Your task to perform on an android device: turn on data saver in the chrome app Image 0: 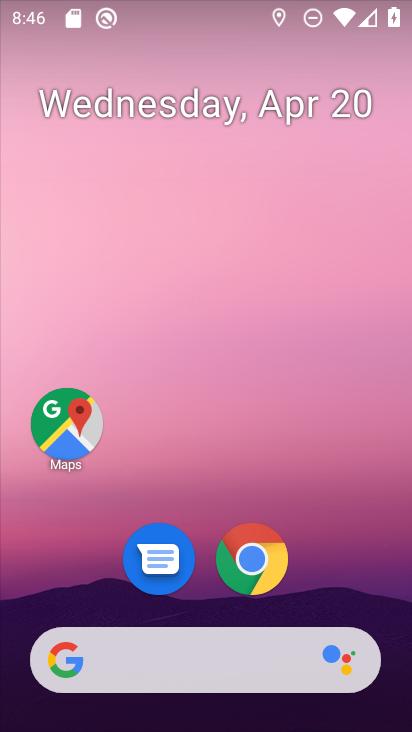
Step 0: click (249, 563)
Your task to perform on an android device: turn on data saver in the chrome app Image 1: 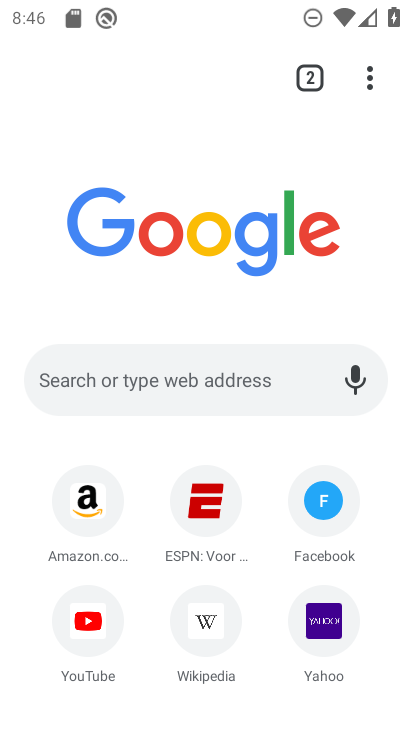
Step 1: click (366, 80)
Your task to perform on an android device: turn on data saver in the chrome app Image 2: 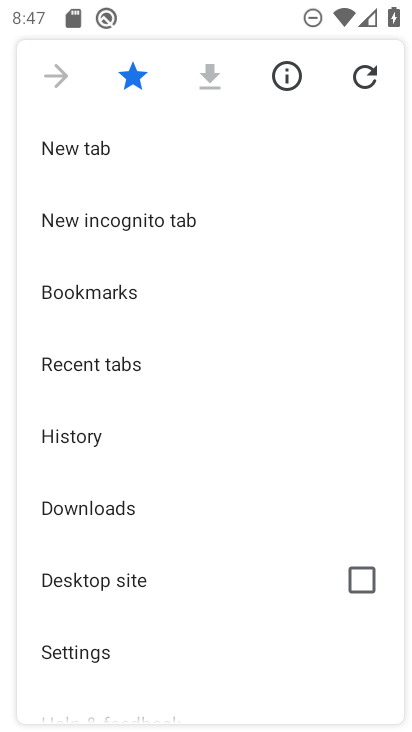
Step 2: drag from (164, 615) to (172, 381)
Your task to perform on an android device: turn on data saver in the chrome app Image 3: 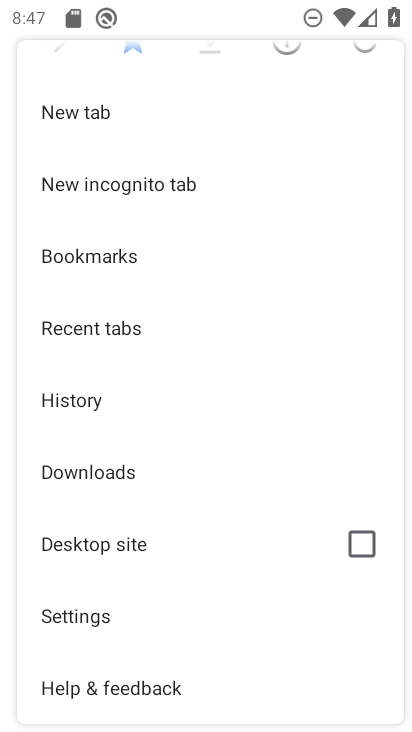
Step 3: click (82, 618)
Your task to perform on an android device: turn on data saver in the chrome app Image 4: 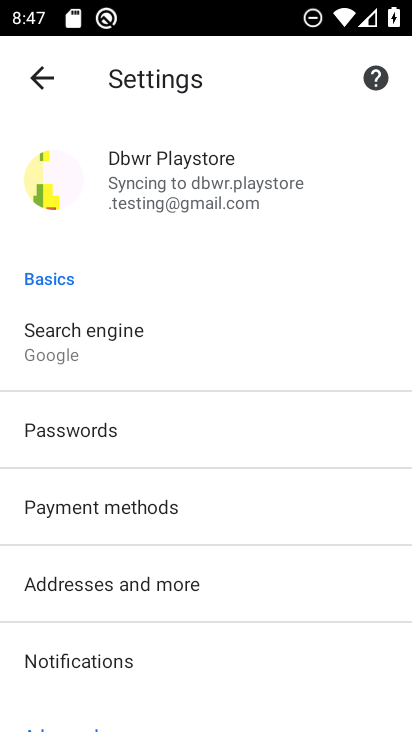
Step 4: drag from (232, 600) to (225, 314)
Your task to perform on an android device: turn on data saver in the chrome app Image 5: 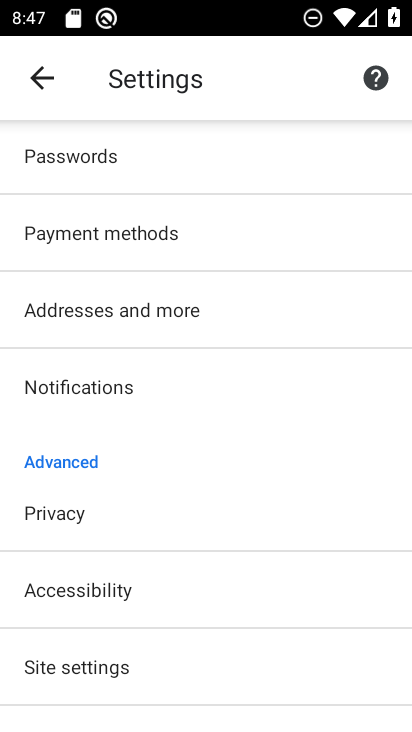
Step 5: drag from (177, 639) to (207, 322)
Your task to perform on an android device: turn on data saver in the chrome app Image 6: 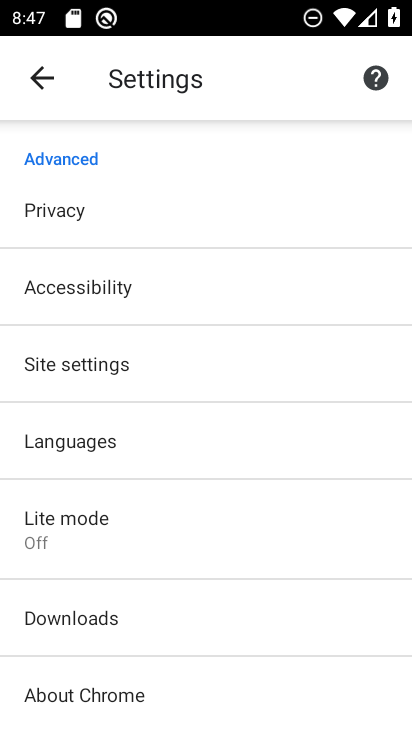
Step 6: click (48, 529)
Your task to perform on an android device: turn on data saver in the chrome app Image 7: 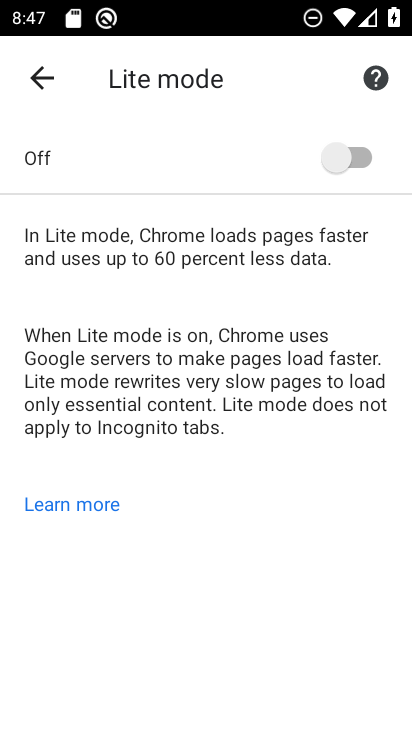
Step 7: click (362, 155)
Your task to perform on an android device: turn on data saver in the chrome app Image 8: 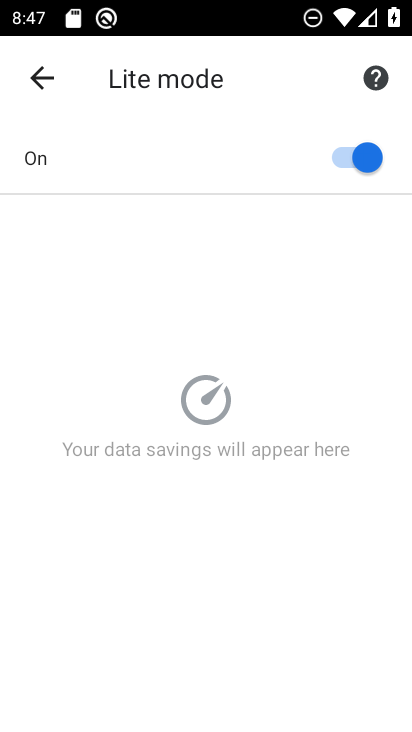
Step 8: task complete